Your task to perform on an android device: open app "Google Translate" (install if not already installed) Image 0: 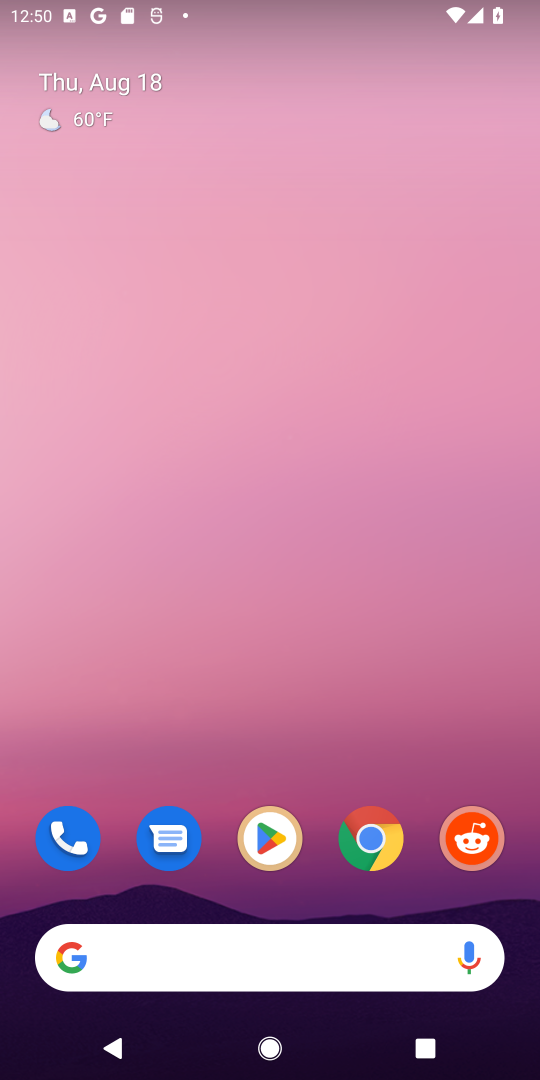
Step 0: click (276, 818)
Your task to perform on an android device: open app "Google Translate" (install if not already installed) Image 1: 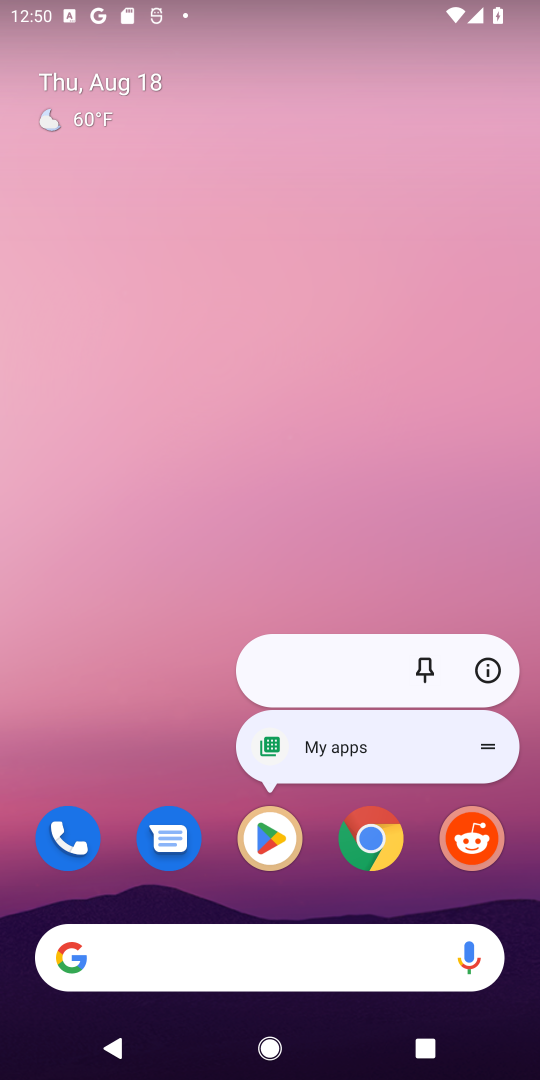
Step 1: click (276, 818)
Your task to perform on an android device: open app "Google Translate" (install if not already installed) Image 2: 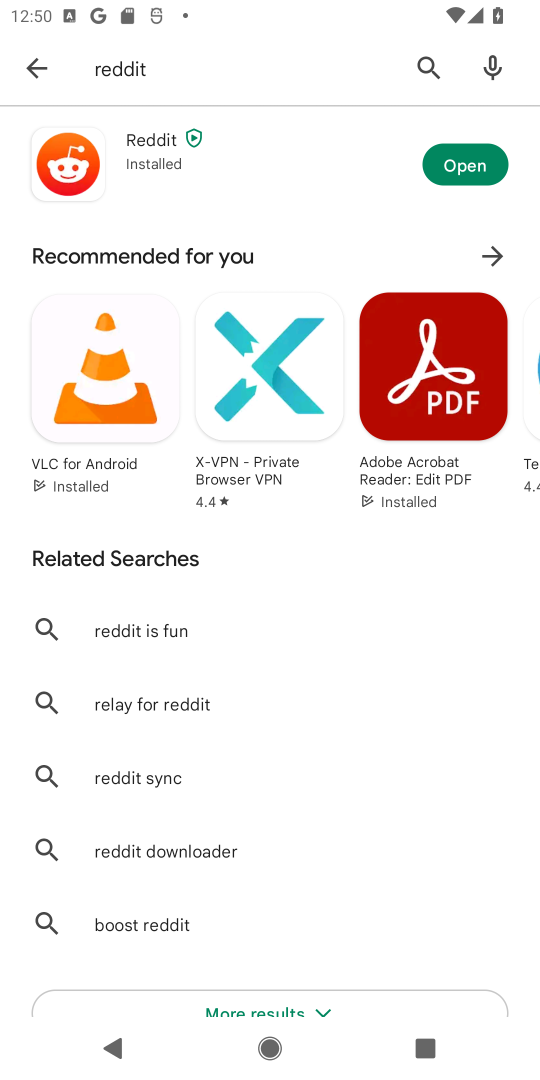
Step 2: click (423, 61)
Your task to perform on an android device: open app "Google Translate" (install if not already installed) Image 3: 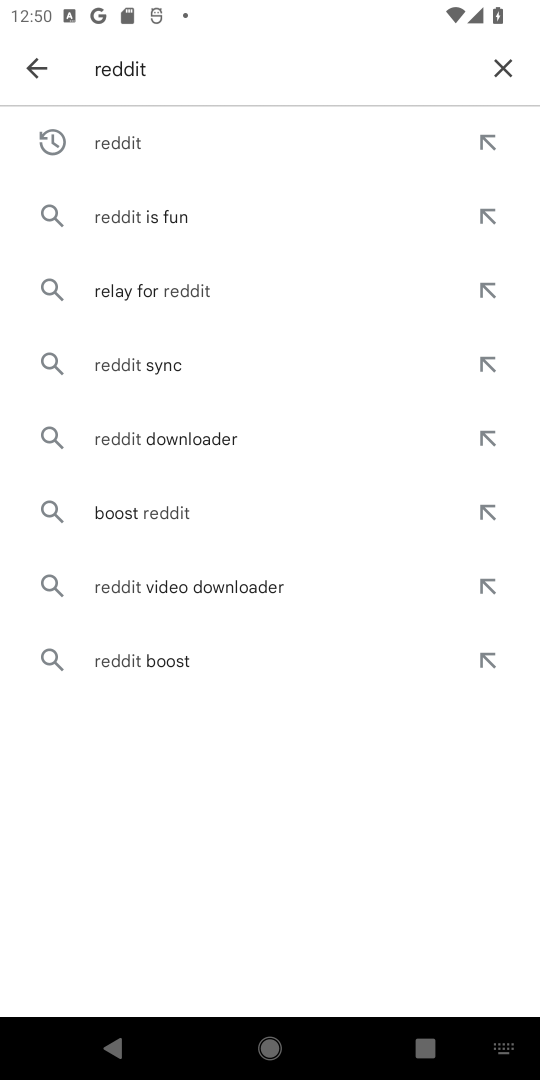
Step 3: click (500, 63)
Your task to perform on an android device: open app "Google Translate" (install if not already installed) Image 4: 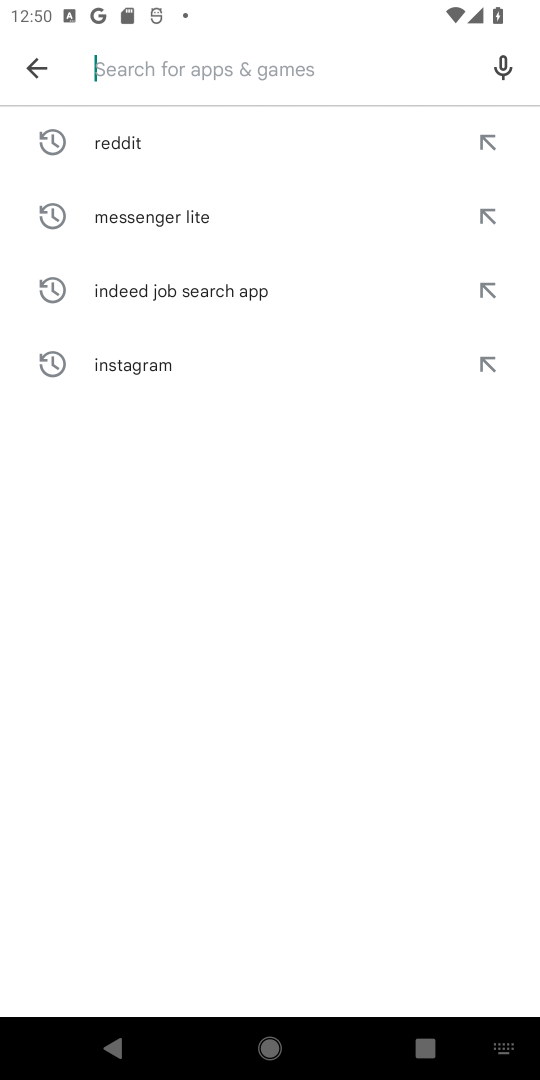
Step 4: type "Google Translate"
Your task to perform on an android device: open app "Google Translate" (install if not already installed) Image 5: 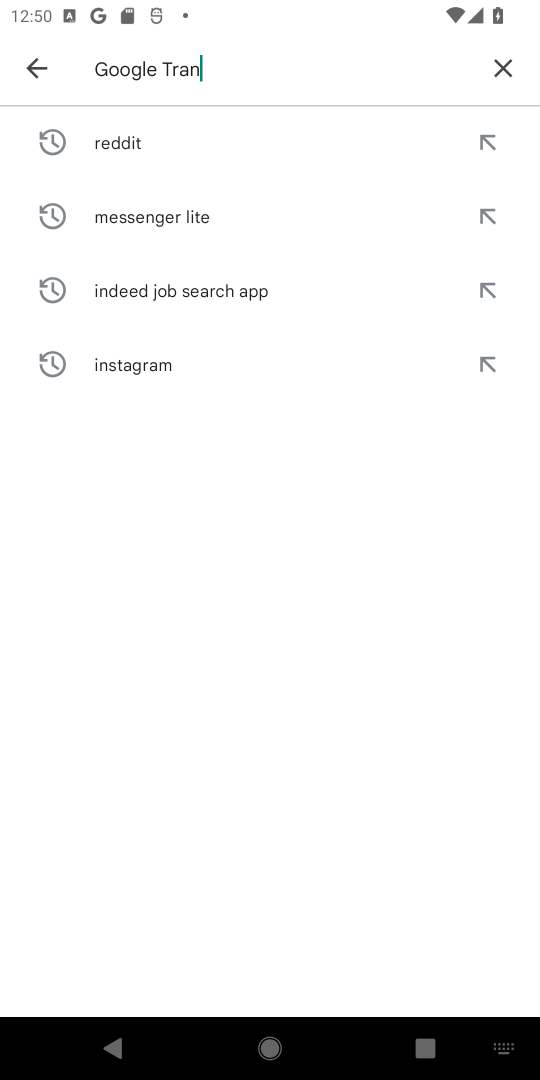
Step 5: type ""
Your task to perform on an android device: open app "Google Translate" (install if not already installed) Image 6: 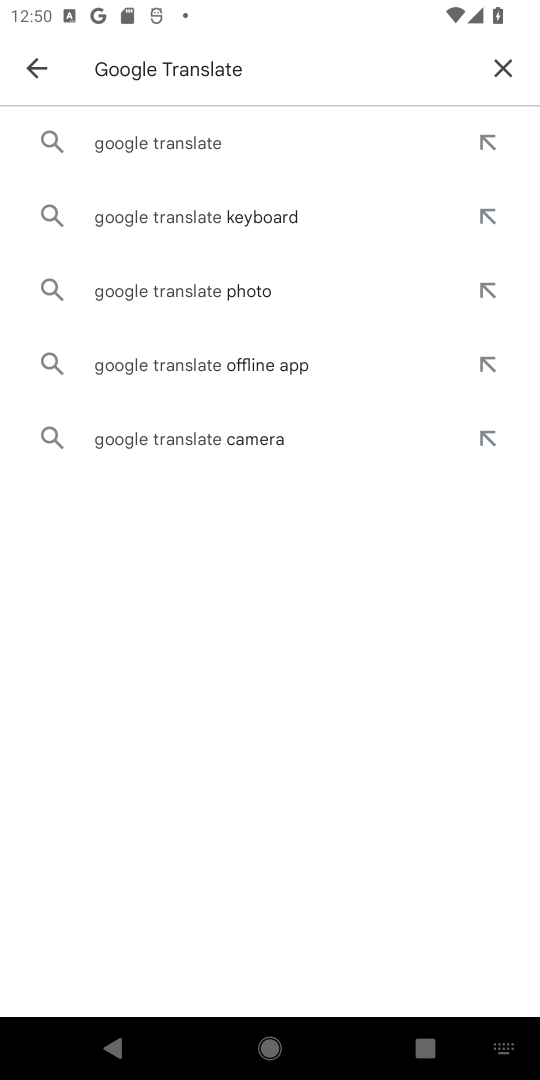
Step 6: click (186, 141)
Your task to perform on an android device: open app "Google Translate" (install if not already installed) Image 7: 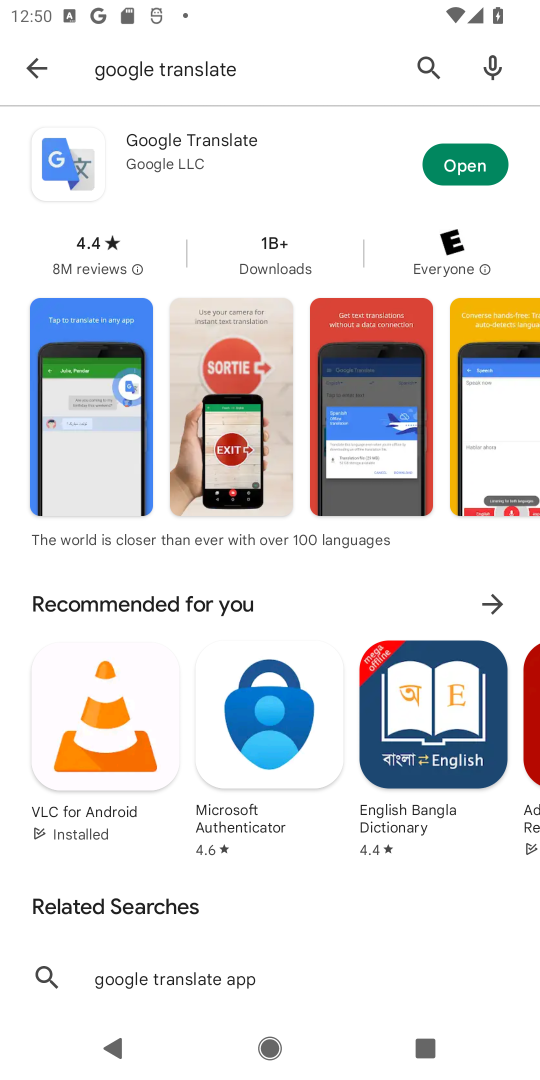
Step 7: click (447, 162)
Your task to perform on an android device: open app "Google Translate" (install if not already installed) Image 8: 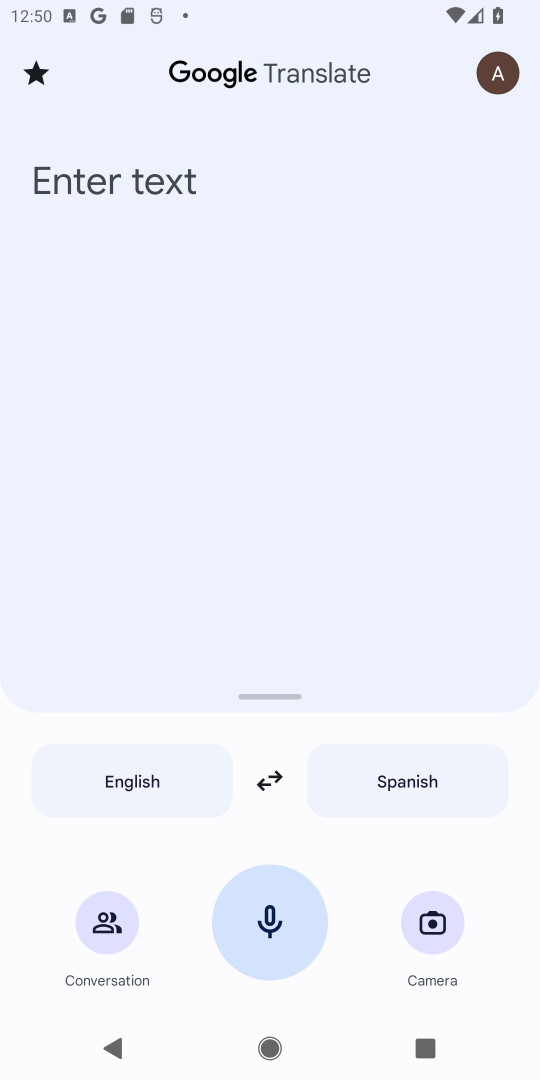
Step 8: task complete